Your task to perform on an android device: turn vacation reply on in the gmail app Image 0: 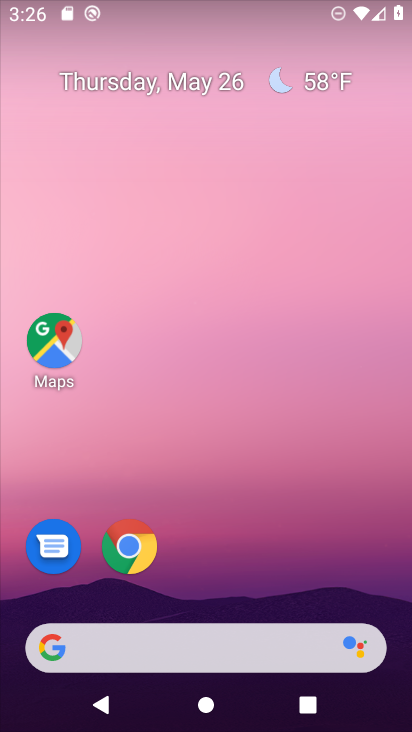
Step 0: press home button
Your task to perform on an android device: turn vacation reply on in the gmail app Image 1: 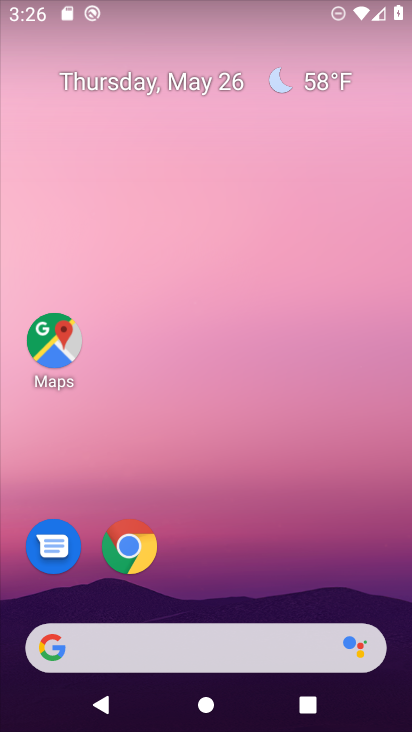
Step 1: drag from (207, 610) to (235, 25)
Your task to perform on an android device: turn vacation reply on in the gmail app Image 2: 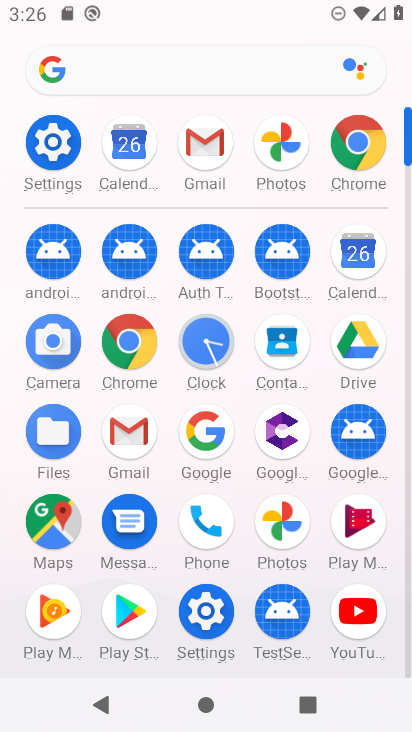
Step 2: click (126, 420)
Your task to perform on an android device: turn vacation reply on in the gmail app Image 3: 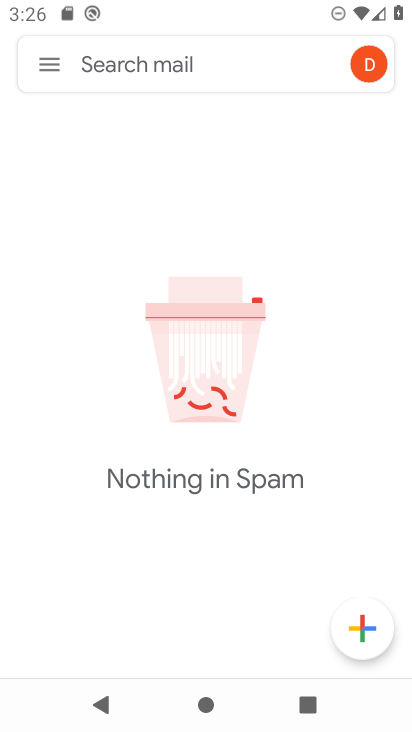
Step 3: click (48, 63)
Your task to perform on an android device: turn vacation reply on in the gmail app Image 4: 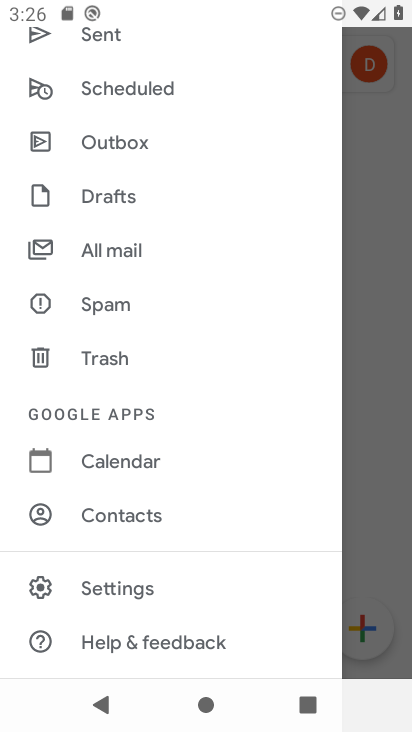
Step 4: click (160, 583)
Your task to perform on an android device: turn vacation reply on in the gmail app Image 5: 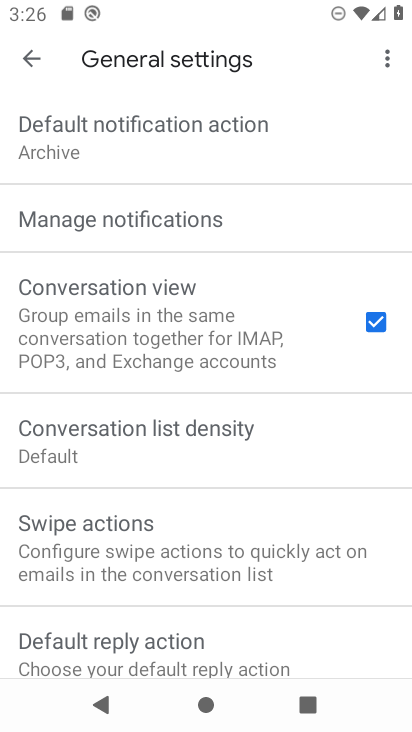
Step 5: click (32, 53)
Your task to perform on an android device: turn vacation reply on in the gmail app Image 6: 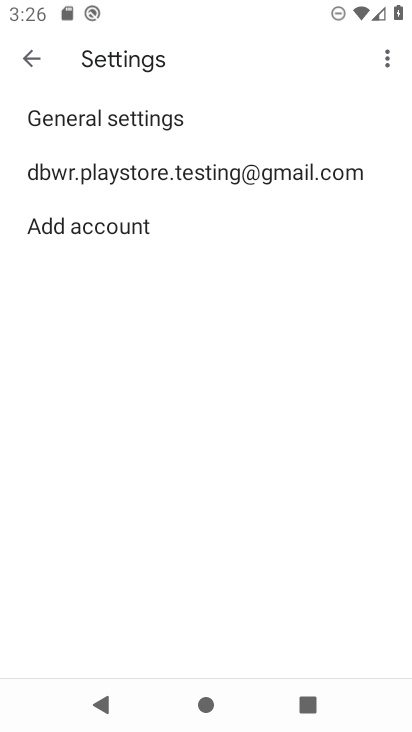
Step 6: click (122, 168)
Your task to perform on an android device: turn vacation reply on in the gmail app Image 7: 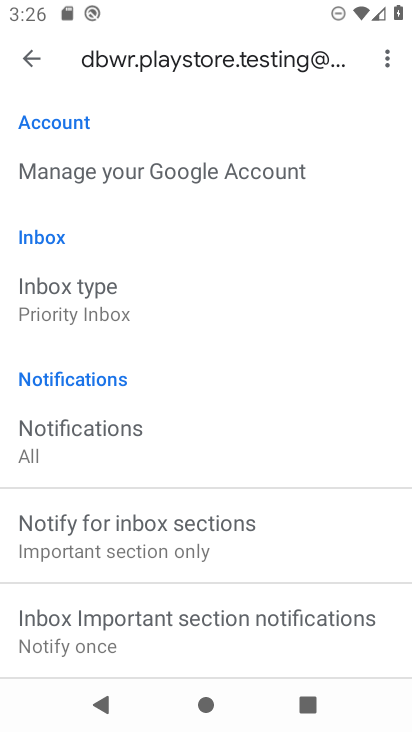
Step 7: drag from (226, 576) to (219, 63)
Your task to perform on an android device: turn vacation reply on in the gmail app Image 8: 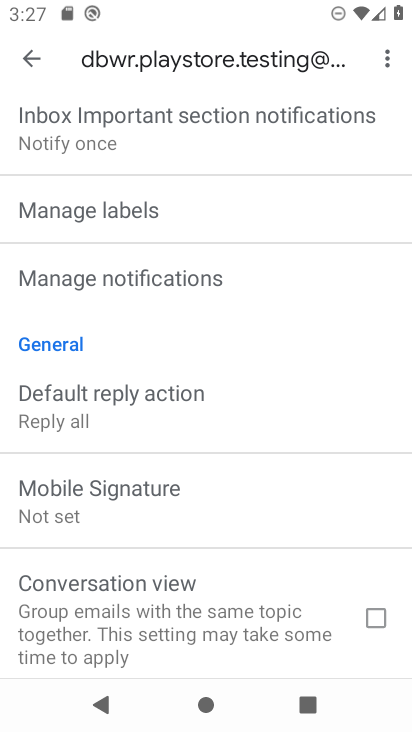
Step 8: drag from (245, 604) to (246, 97)
Your task to perform on an android device: turn vacation reply on in the gmail app Image 9: 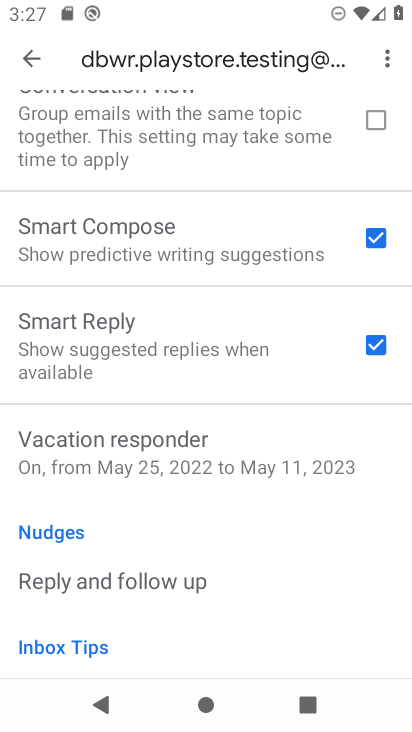
Step 9: drag from (218, 571) to (217, 399)
Your task to perform on an android device: turn vacation reply on in the gmail app Image 10: 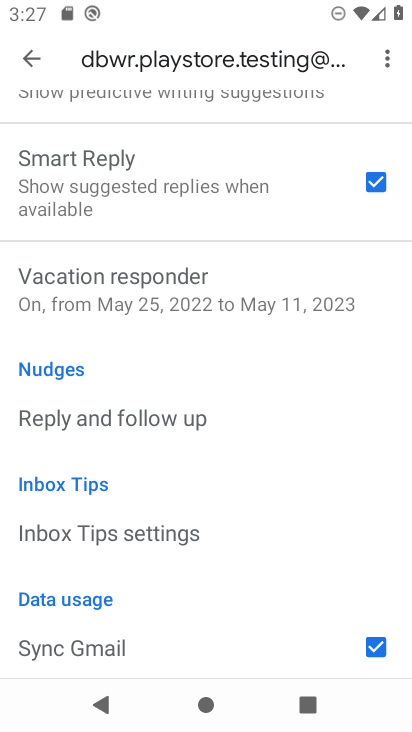
Step 10: click (173, 290)
Your task to perform on an android device: turn vacation reply on in the gmail app Image 11: 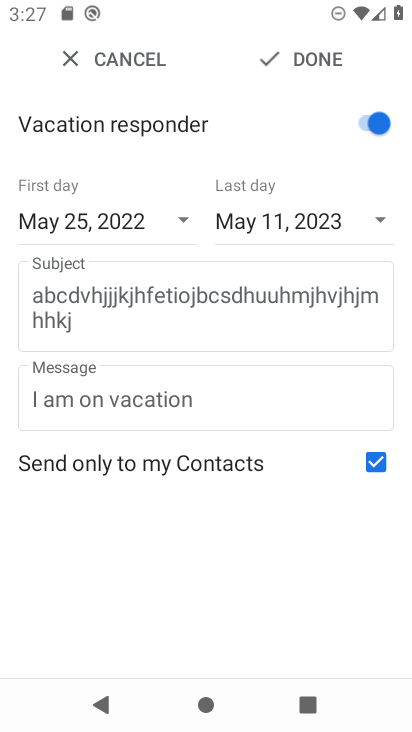
Step 11: task complete